Your task to perform on an android device: clear history in the chrome app Image 0: 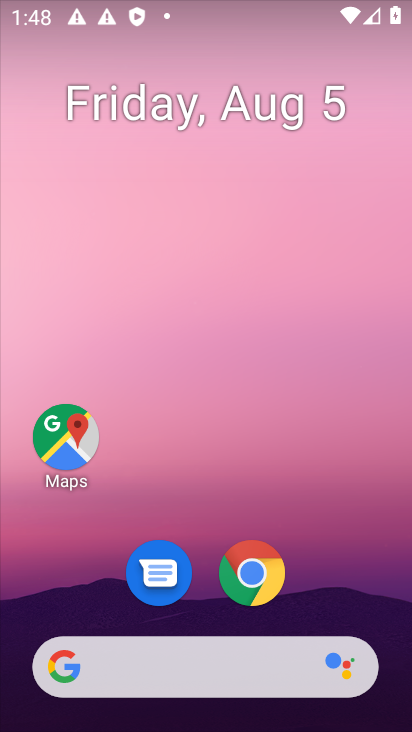
Step 0: press home button
Your task to perform on an android device: clear history in the chrome app Image 1: 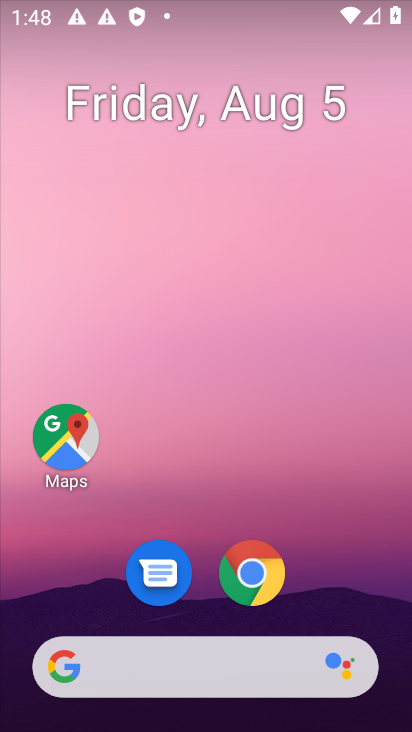
Step 1: drag from (368, 593) to (341, 251)
Your task to perform on an android device: clear history in the chrome app Image 2: 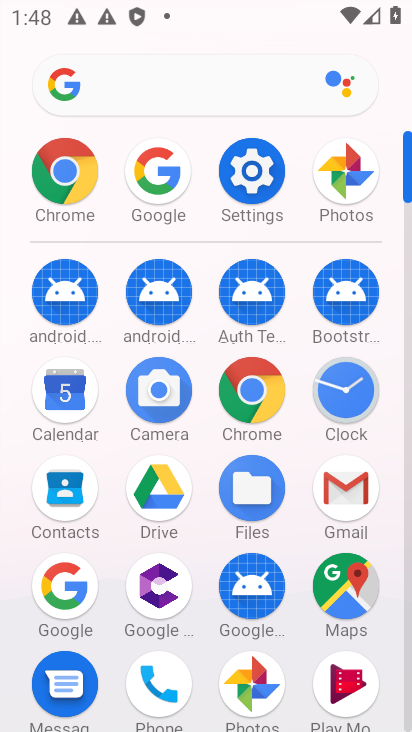
Step 2: click (248, 390)
Your task to perform on an android device: clear history in the chrome app Image 3: 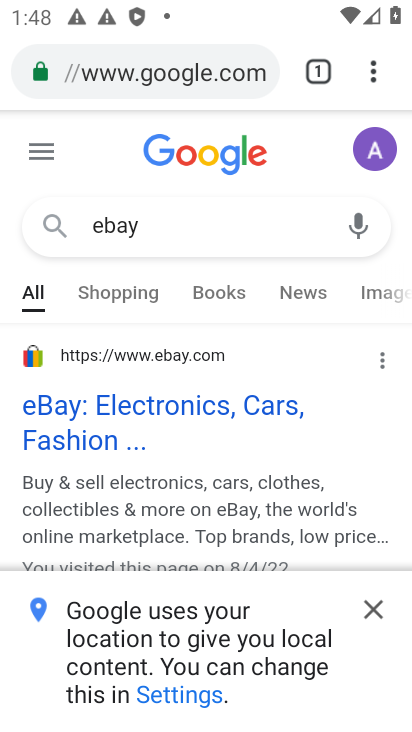
Step 3: click (372, 64)
Your task to perform on an android device: clear history in the chrome app Image 4: 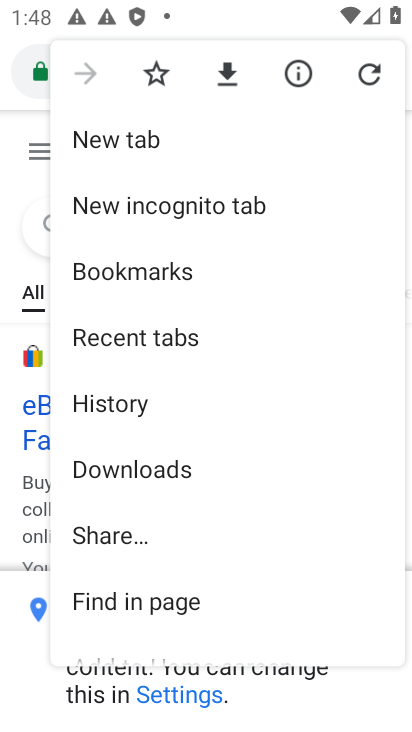
Step 4: drag from (312, 467) to (321, 349)
Your task to perform on an android device: clear history in the chrome app Image 5: 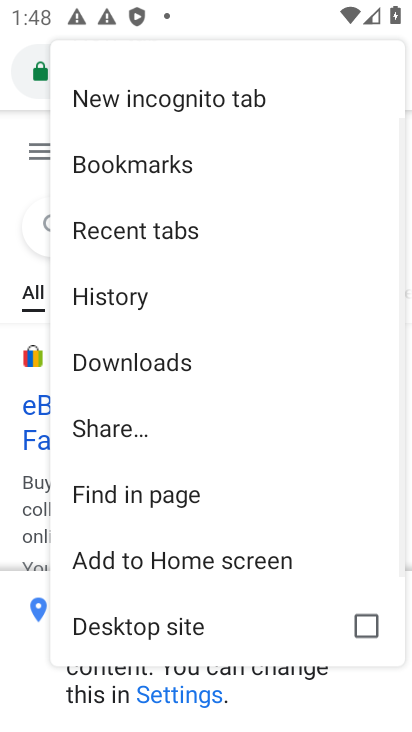
Step 5: drag from (323, 513) to (333, 361)
Your task to perform on an android device: clear history in the chrome app Image 6: 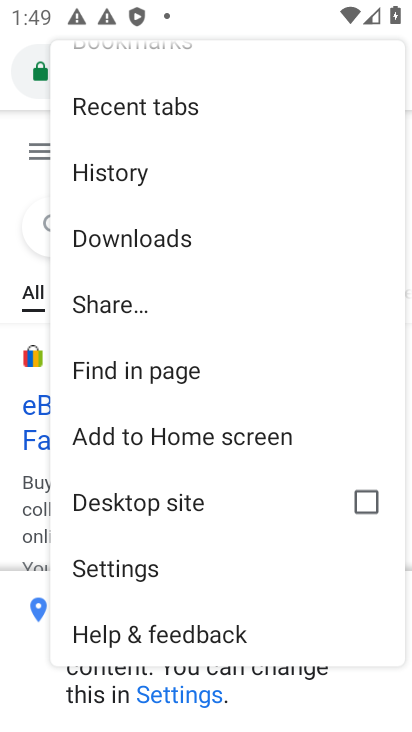
Step 6: click (146, 177)
Your task to perform on an android device: clear history in the chrome app Image 7: 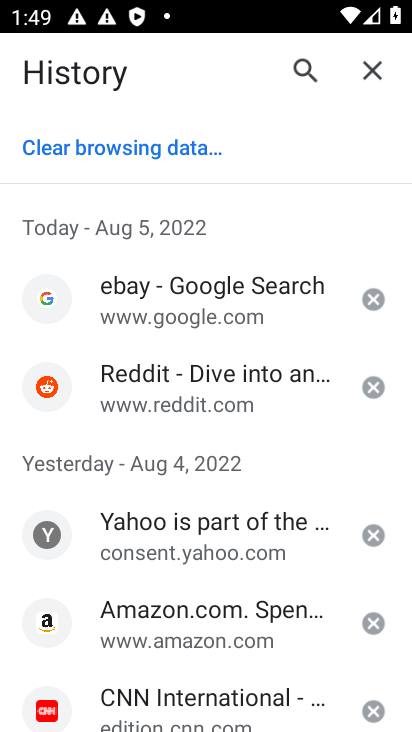
Step 7: click (187, 151)
Your task to perform on an android device: clear history in the chrome app Image 8: 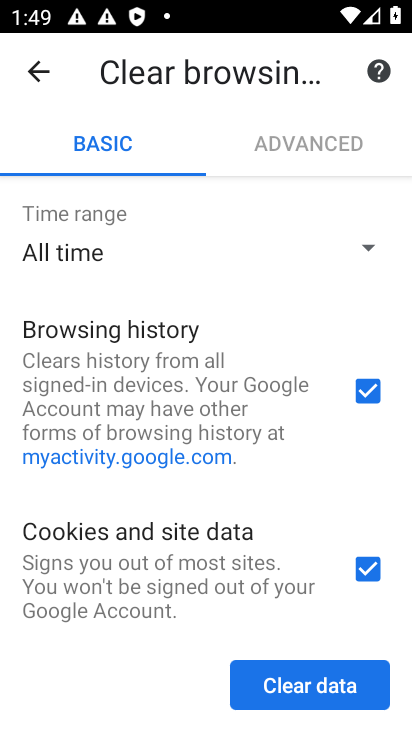
Step 8: click (320, 687)
Your task to perform on an android device: clear history in the chrome app Image 9: 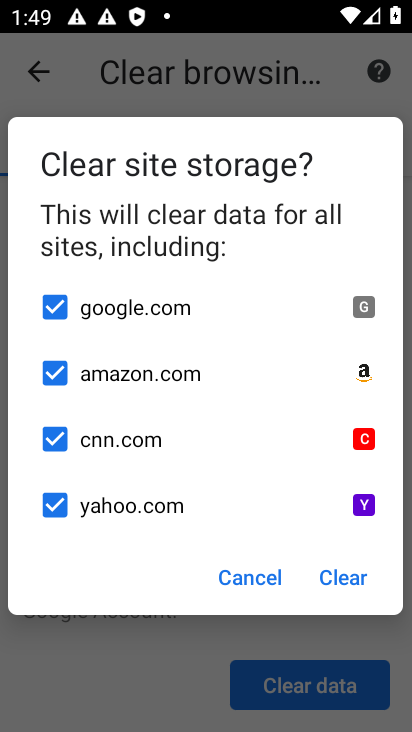
Step 9: click (345, 575)
Your task to perform on an android device: clear history in the chrome app Image 10: 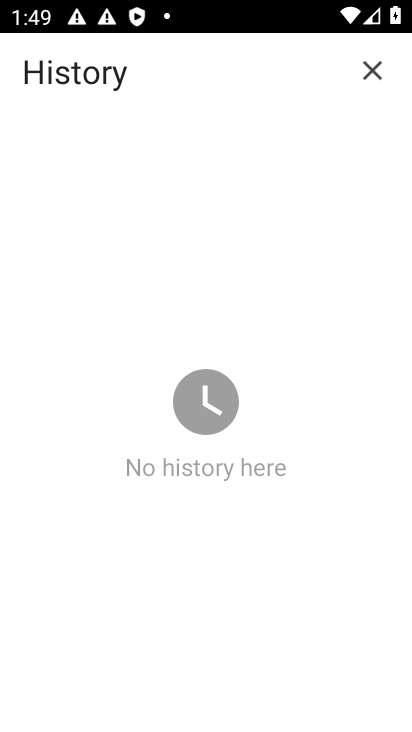
Step 10: task complete